Your task to perform on an android device: Search for seafood restaurants on Google Maps Image 0: 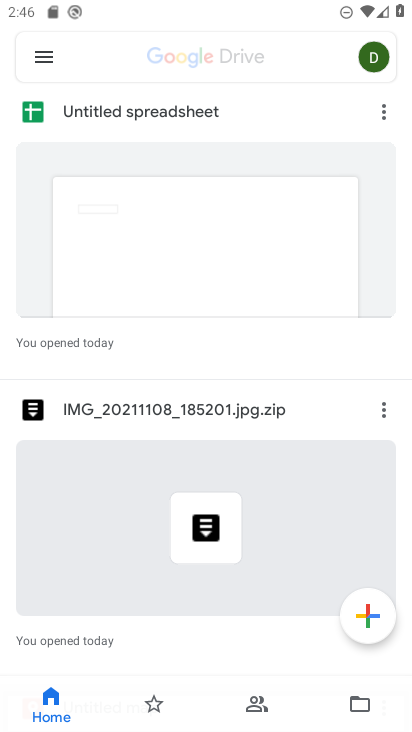
Step 0: drag from (177, 262) to (142, 94)
Your task to perform on an android device: Search for seafood restaurants on Google Maps Image 1: 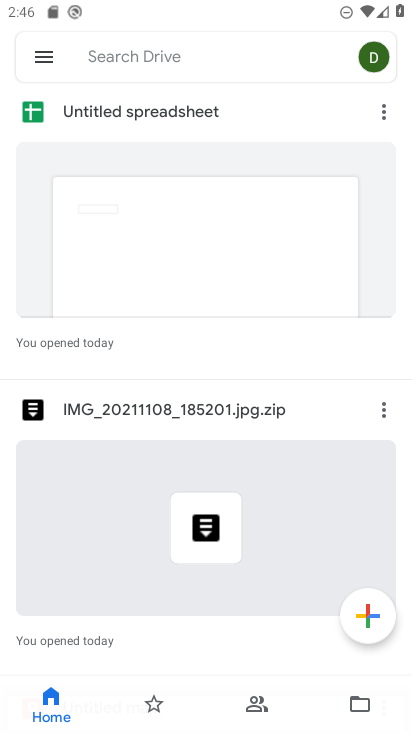
Step 1: press back button
Your task to perform on an android device: Search for seafood restaurants on Google Maps Image 2: 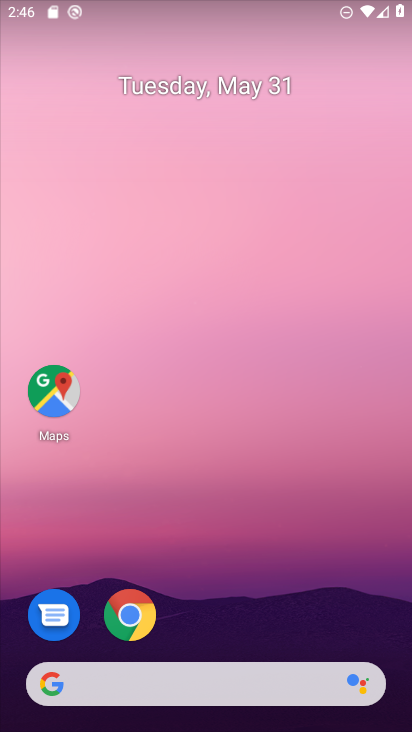
Step 2: drag from (279, 693) to (217, 88)
Your task to perform on an android device: Search for seafood restaurants on Google Maps Image 3: 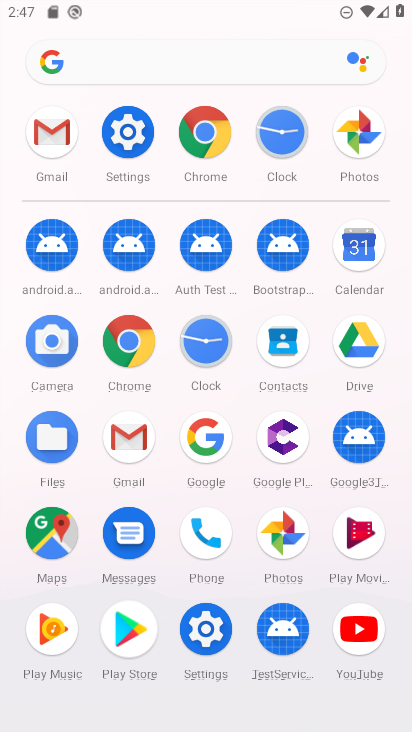
Step 3: click (43, 536)
Your task to perform on an android device: Search for seafood restaurants on Google Maps Image 4: 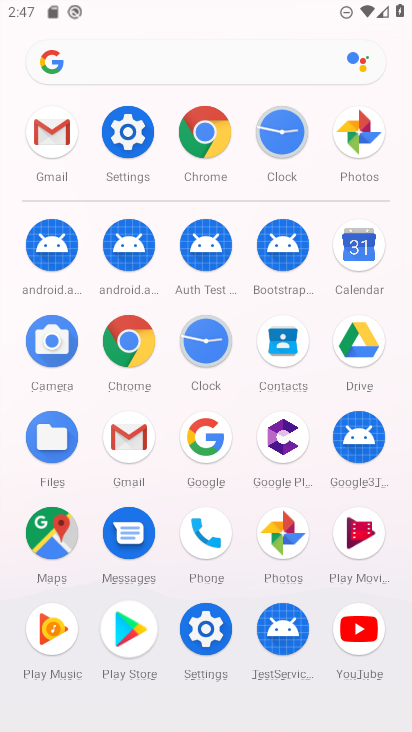
Step 4: click (45, 533)
Your task to perform on an android device: Search for seafood restaurants on Google Maps Image 5: 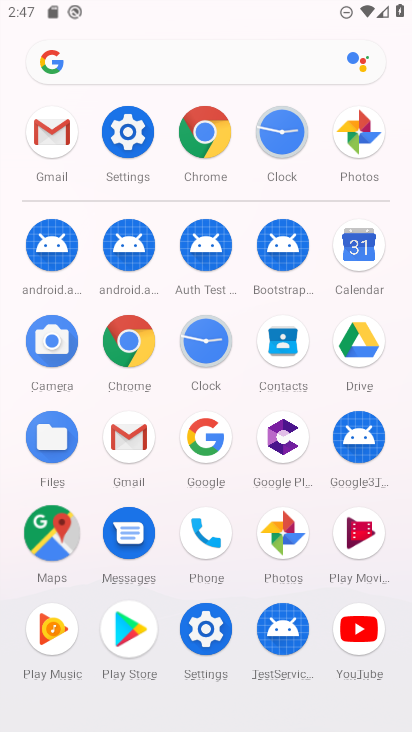
Step 5: click (46, 530)
Your task to perform on an android device: Search for seafood restaurants on Google Maps Image 6: 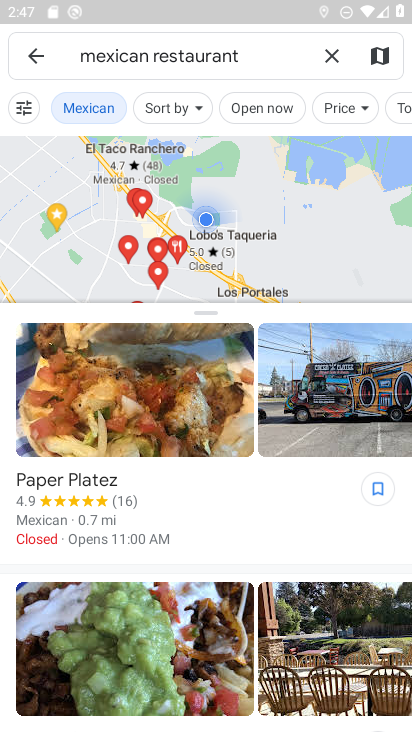
Step 6: click (321, 59)
Your task to perform on an android device: Search for seafood restaurants on Google Maps Image 7: 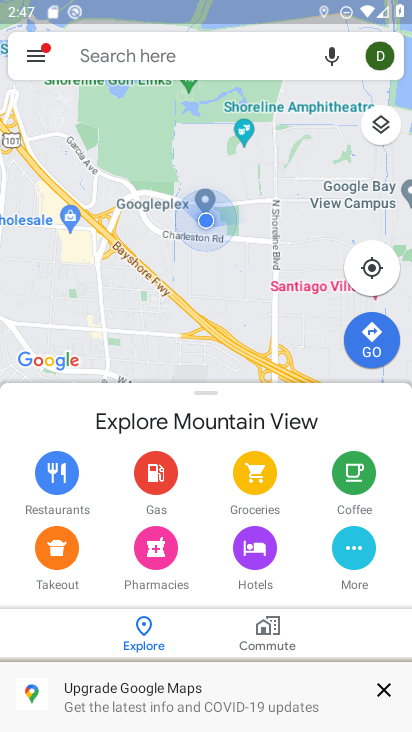
Step 7: type "seafood restaurants"
Your task to perform on an android device: Search for seafood restaurants on Google Maps Image 8: 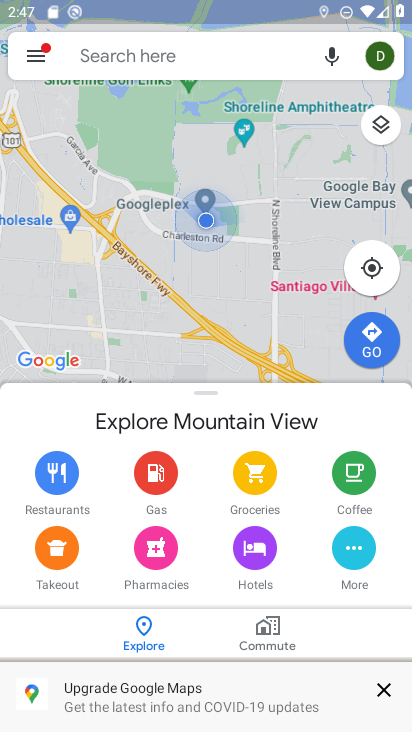
Step 8: click (75, 60)
Your task to perform on an android device: Search for seafood restaurants on Google Maps Image 9: 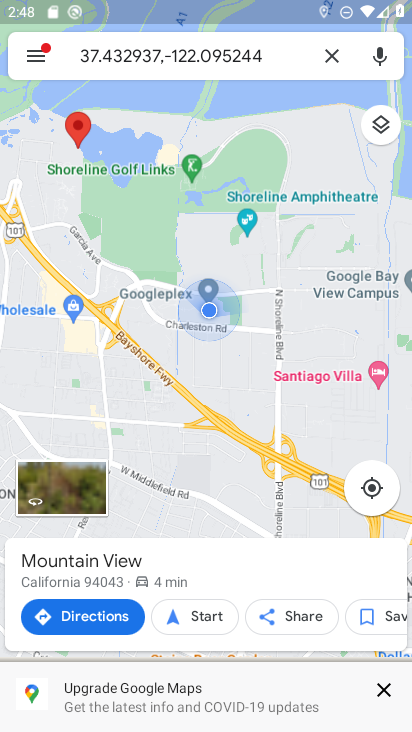
Step 9: click (335, 51)
Your task to perform on an android device: Search for seafood restaurants on Google Maps Image 10: 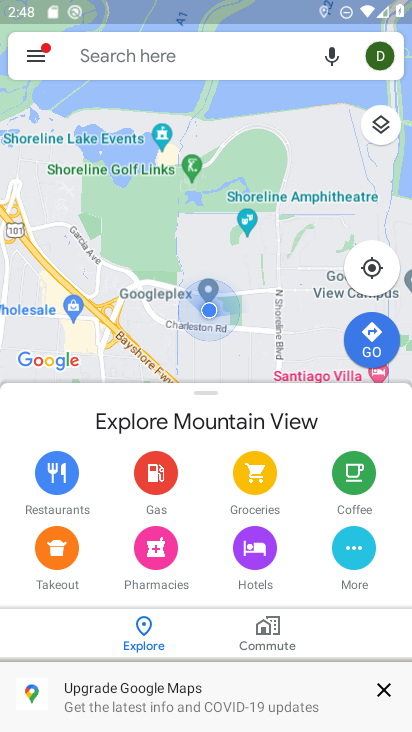
Step 10: type "seafood restaurants"
Your task to perform on an android device: Search for seafood restaurants on Google Maps Image 11: 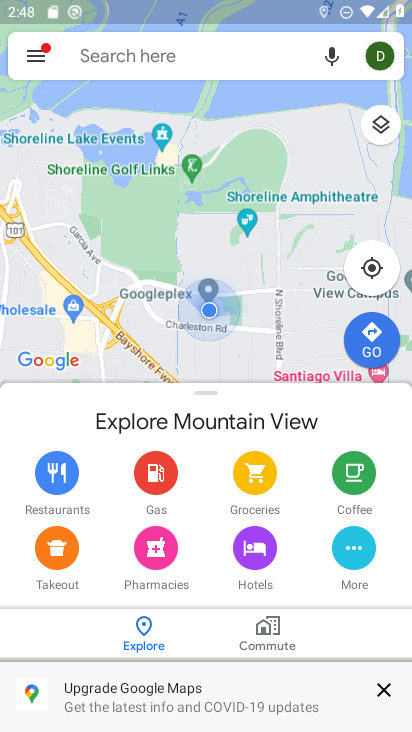
Step 11: click (86, 54)
Your task to perform on an android device: Search for seafood restaurants on Google Maps Image 12: 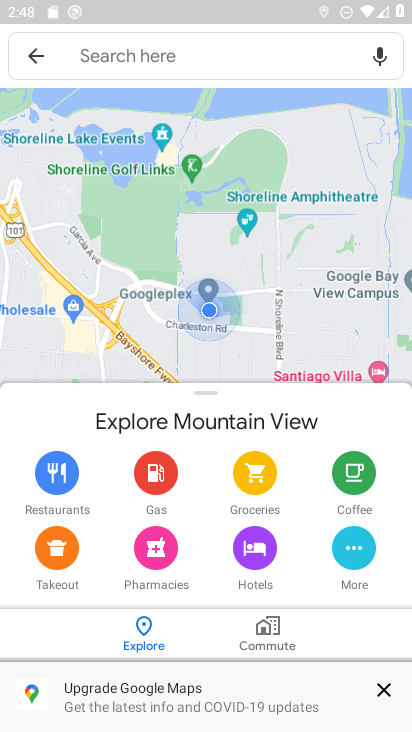
Step 12: click (85, 53)
Your task to perform on an android device: Search for seafood restaurants on Google Maps Image 13: 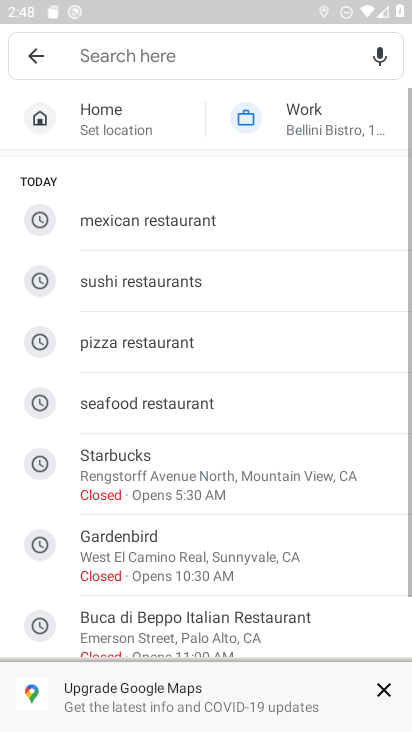
Step 13: click (85, 53)
Your task to perform on an android device: Search for seafood restaurants on Google Maps Image 14: 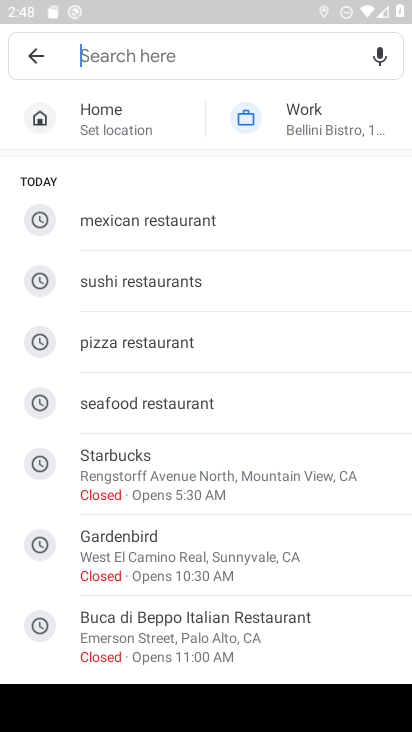
Step 14: click (147, 406)
Your task to perform on an android device: Search for seafood restaurants on Google Maps Image 15: 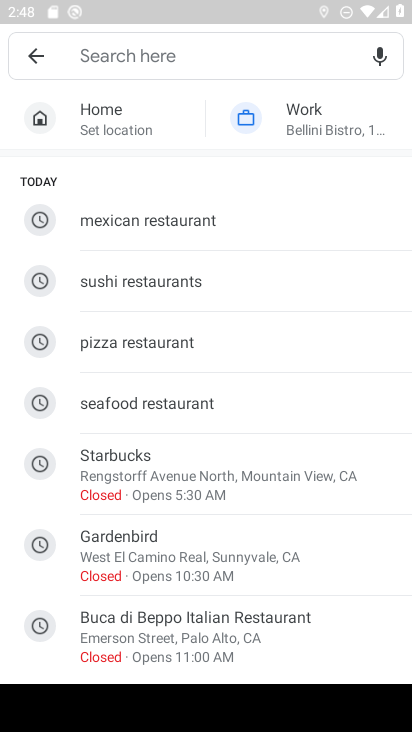
Step 15: click (147, 406)
Your task to perform on an android device: Search for seafood restaurants on Google Maps Image 16: 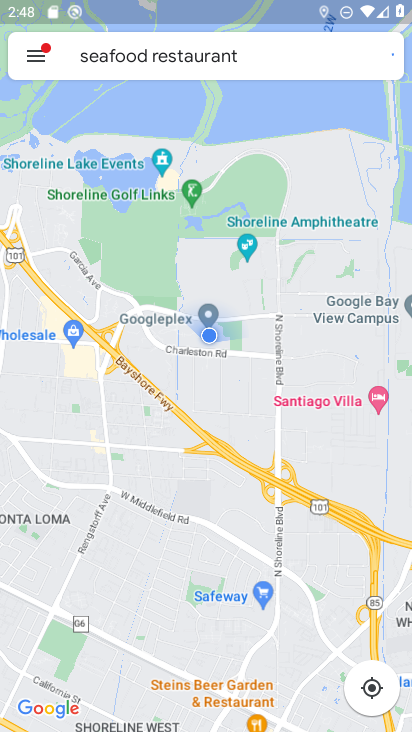
Step 16: task complete